Your task to perform on an android device: Show me recent news Image 0: 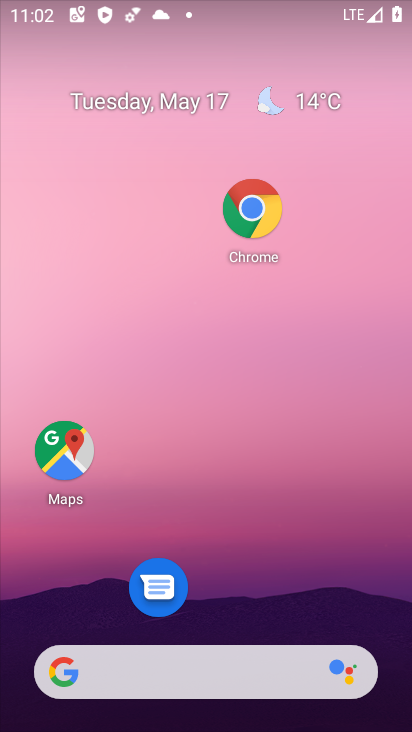
Step 0: drag from (310, 527) to (275, 99)
Your task to perform on an android device: Show me recent news Image 1: 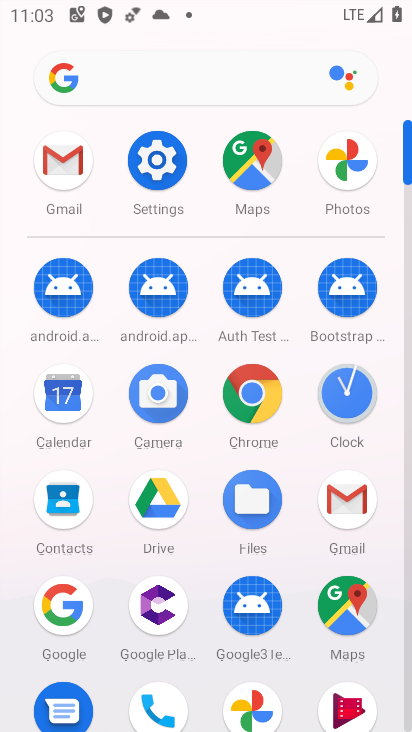
Step 1: click (65, 595)
Your task to perform on an android device: Show me recent news Image 2: 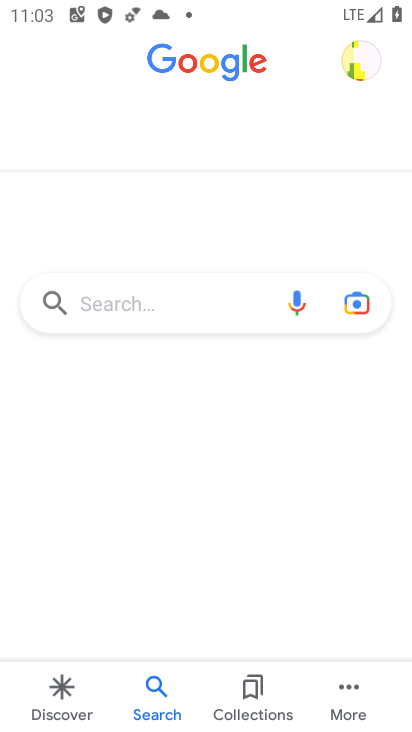
Step 2: click (217, 319)
Your task to perform on an android device: Show me recent news Image 3: 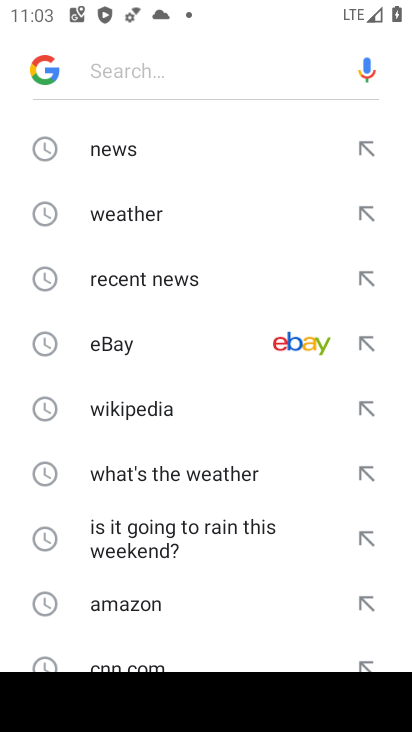
Step 3: click (171, 280)
Your task to perform on an android device: Show me recent news Image 4: 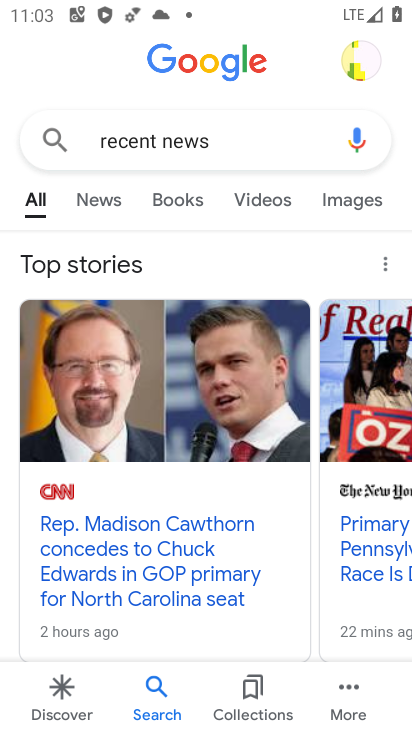
Step 4: click (117, 203)
Your task to perform on an android device: Show me recent news Image 5: 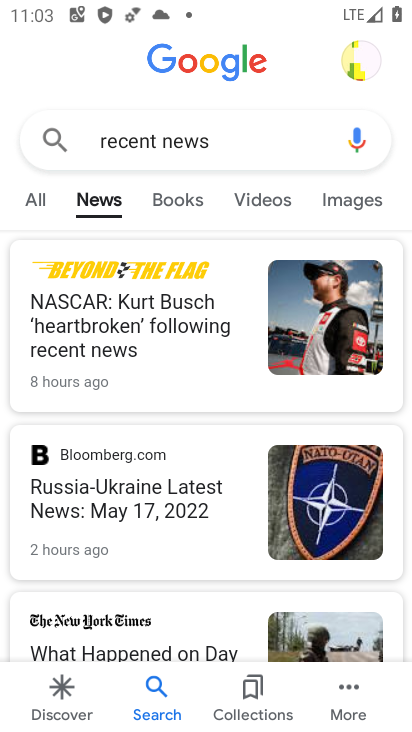
Step 5: task complete